Your task to perform on an android device: What is the recent news? Image 0: 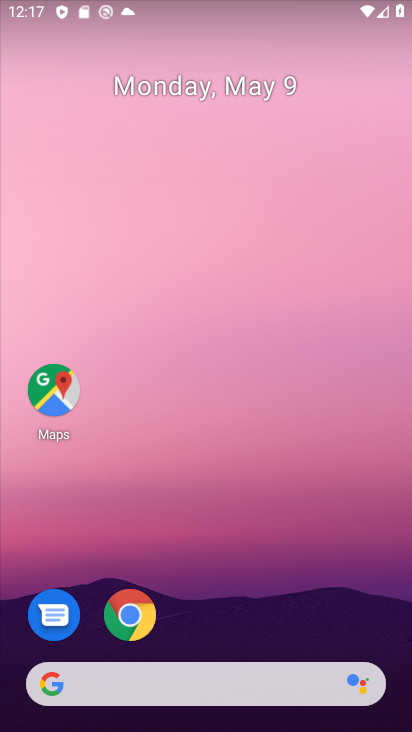
Step 0: drag from (225, 620) to (238, 25)
Your task to perform on an android device: What is the recent news? Image 1: 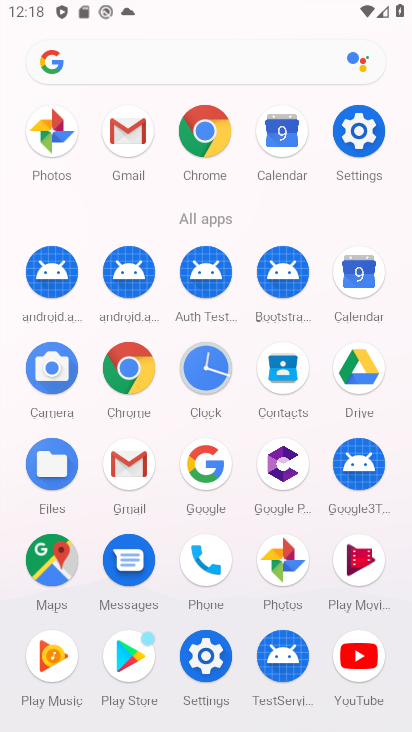
Step 1: click (201, 465)
Your task to perform on an android device: What is the recent news? Image 2: 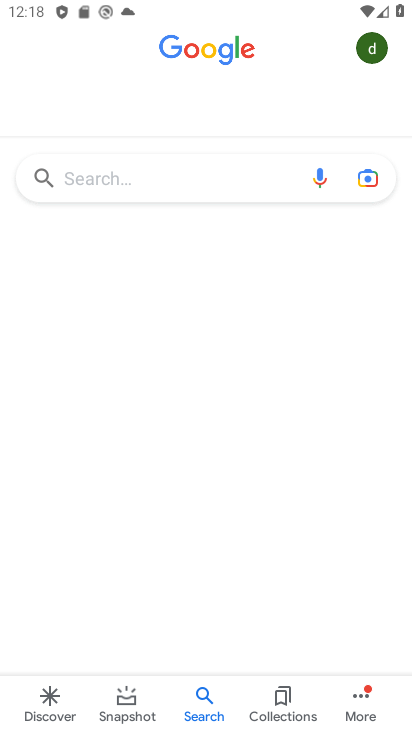
Step 2: click (126, 171)
Your task to perform on an android device: What is the recent news? Image 3: 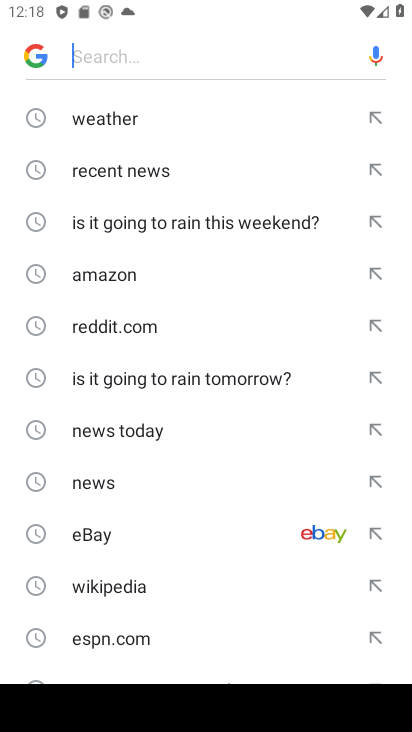
Step 3: type "recent news?"
Your task to perform on an android device: What is the recent news? Image 4: 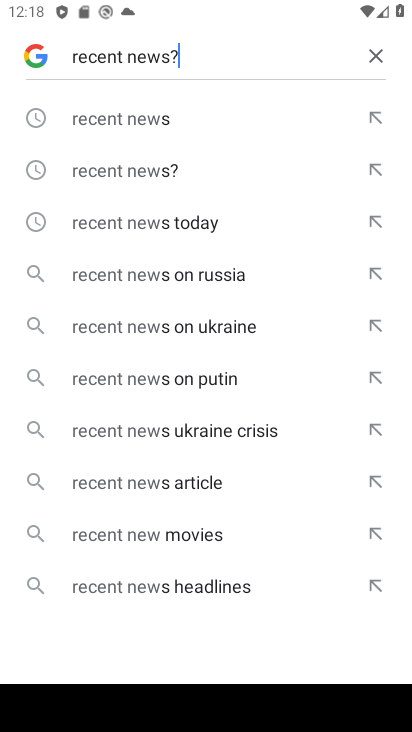
Step 4: type ""
Your task to perform on an android device: What is the recent news? Image 5: 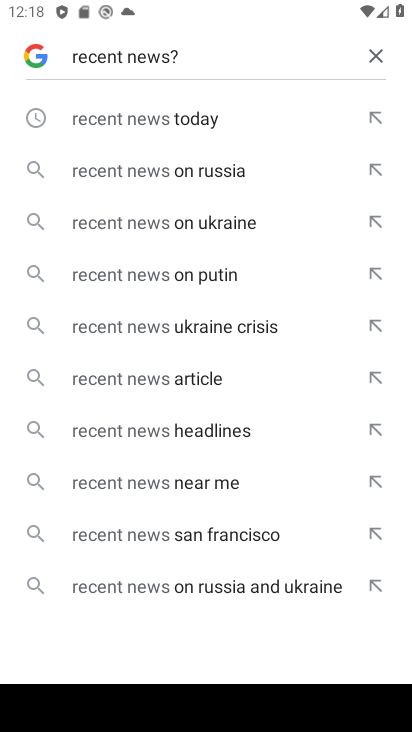
Step 5: click (124, 114)
Your task to perform on an android device: What is the recent news? Image 6: 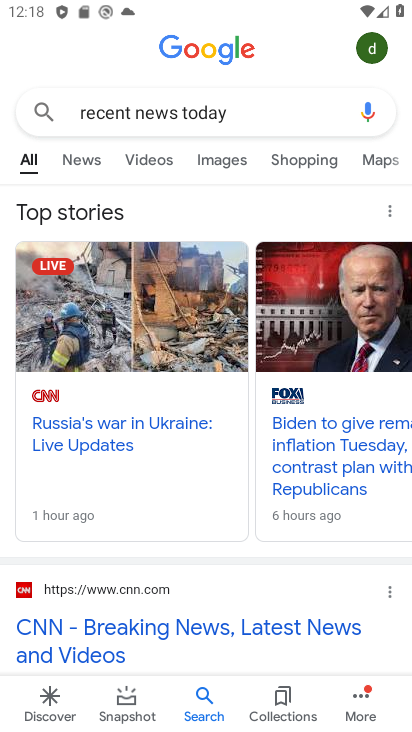
Step 6: task complete